Your task to perform on an android device: read, delete, or share a saved page in the chrome app Image 0: 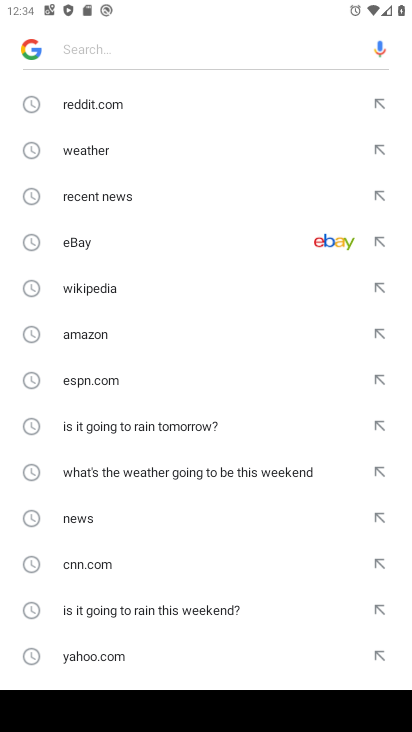
Step 0: press home button
Your task to perform on an android device: read, delete, or share a saved page in the chrome app Image 1: 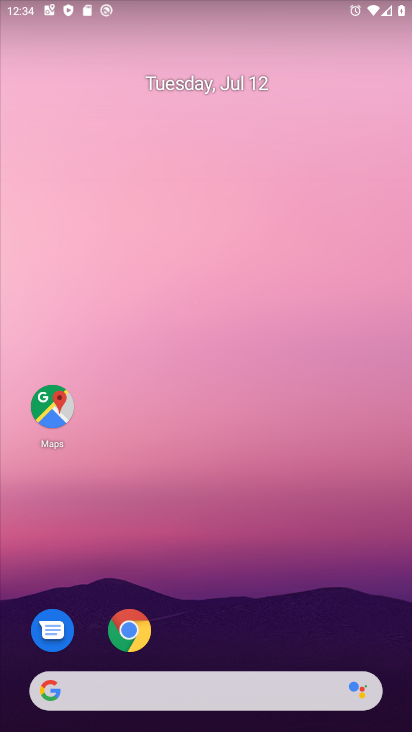
Step 1: click (128, 631)
Your task to perform on an android device: read, delete, or share a saved page in the chrome app Image 2: 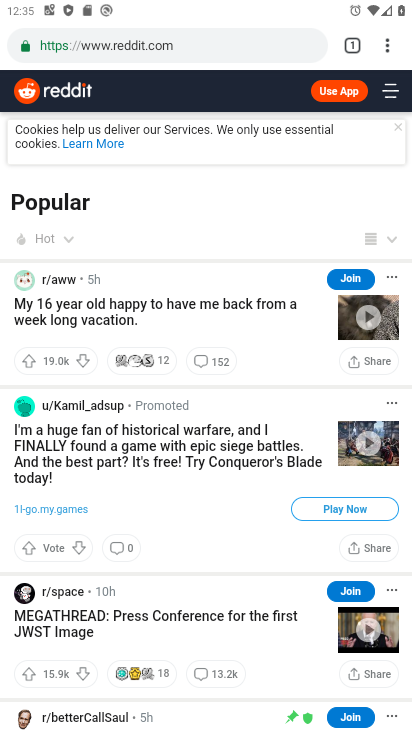
Step 2: click (390, 43)
Your task to perform on an android device: read, delete, or share a saved page in the chrome app Image 3: 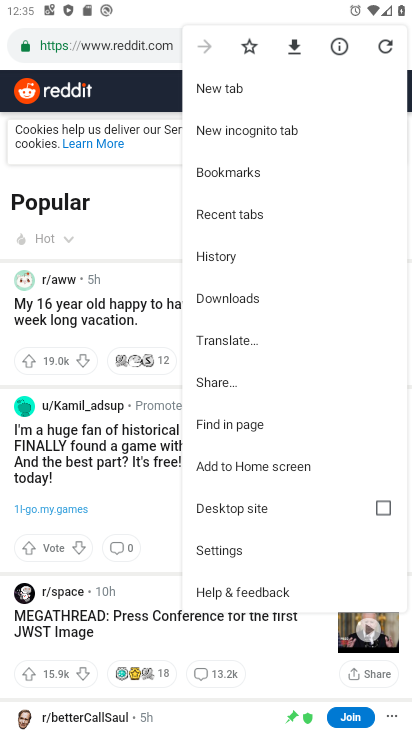
Step 3: click (241, 299)
Your task to perform on an android device: read, delete, or share a saved page in the chrome app Image 4: 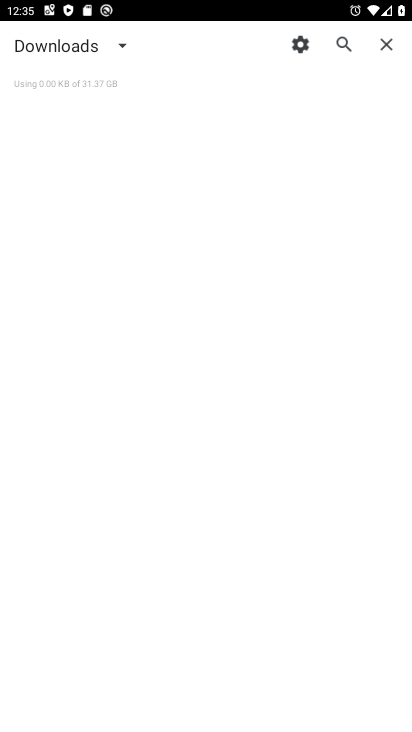
Step 4: click (117, 42)
Your task to perform on an android device: read, delete, or share a saved page in the chrome app Image 5: 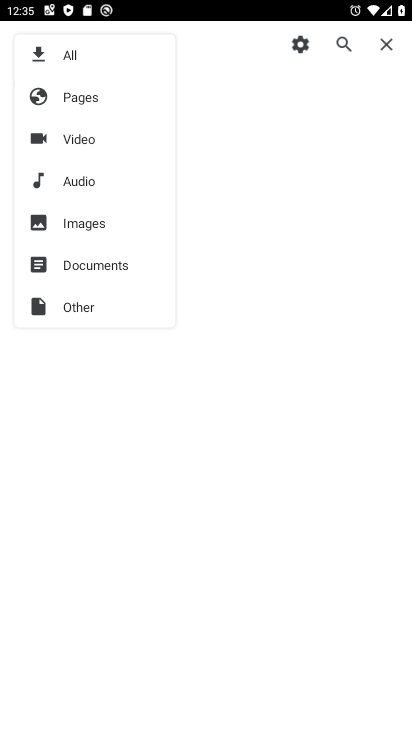
Step 5: click (87, 235)
Your task to perform on an android device: read, delete, or share a saved page in the chrome app Image 6: 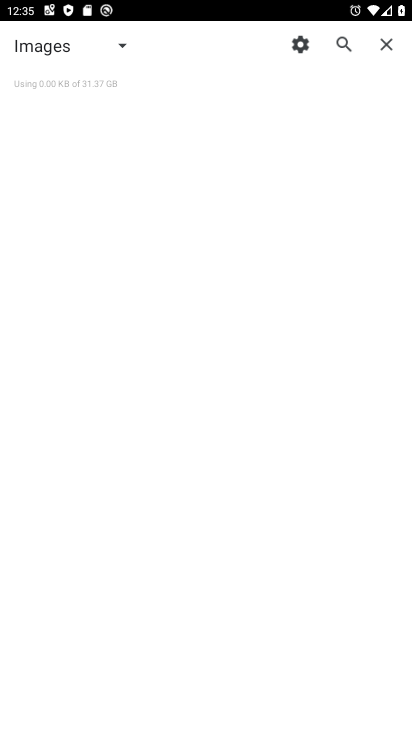
Step 6: click (116, 45)
Your task to perform on an android device: read, delete, or share a saved page in the chrome app Image 7: 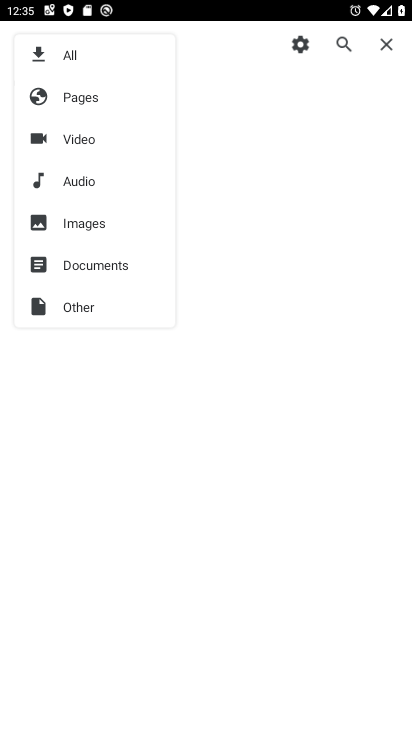
Step 7: click (81, 315)
Your task to perform on an android device: read, delete, or share a saved page in the chrome app Image 8: 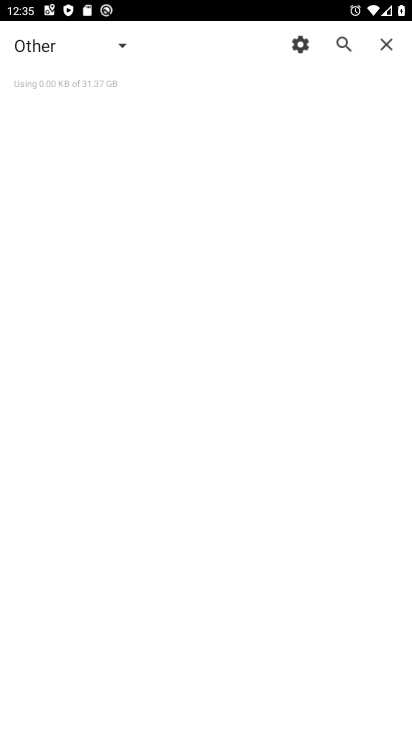
Step 8: task complete